Your task to perform on an android device: Open my contact list Image 0: 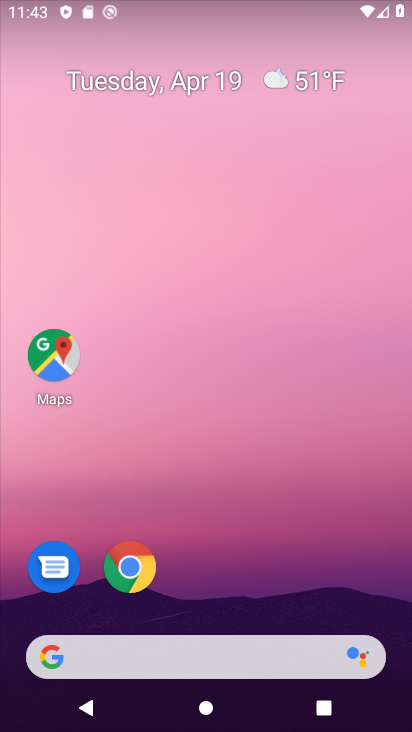
Step 0: drag from (212, 449) to (342, 69)
Your task to perform on an android device: Open my contact list Image 1: 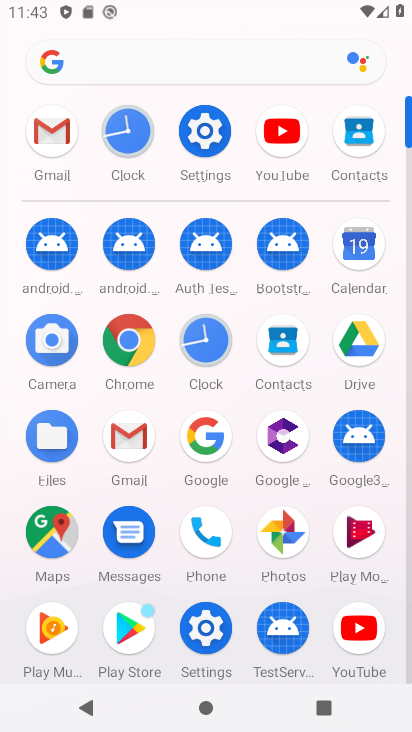
Step 1: click (282, 358)
Your task to perform on an android device: Open my contact list Image 2: 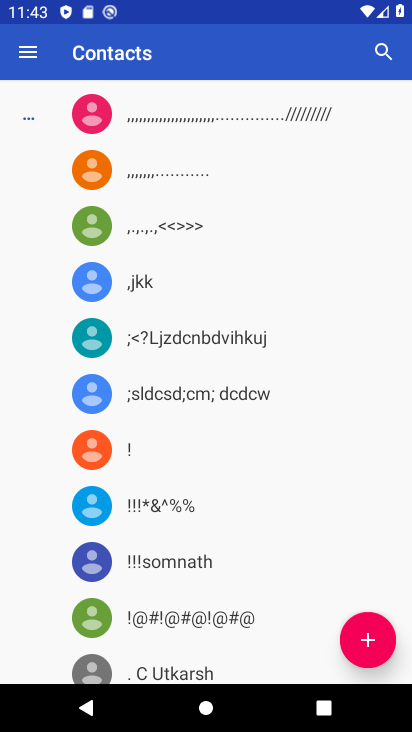
Step 2: task complete